Your task to perform on an android device: Open Yahoo.com Image 0: 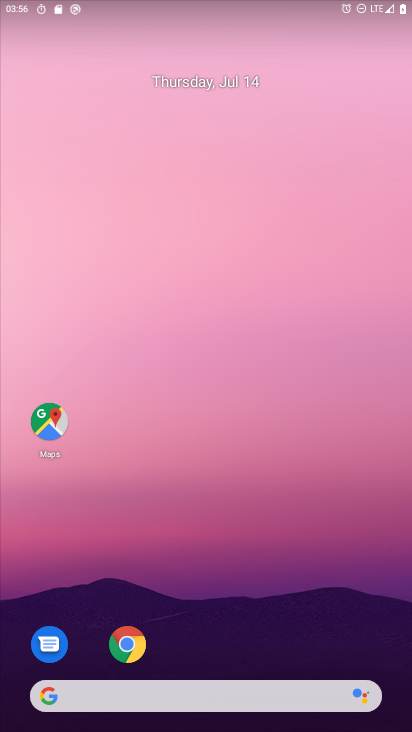
Step 0: drag from (260, 601) to (217, 83)
Your task to perform on an android device: Open Yahoo.com Image 1: 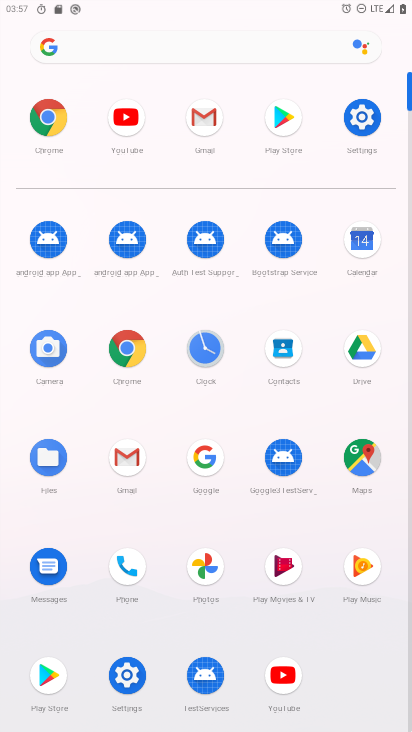
Step 1: click (127, 352)
Your task to perform on an android device: Open Yahoo.com Image 2: 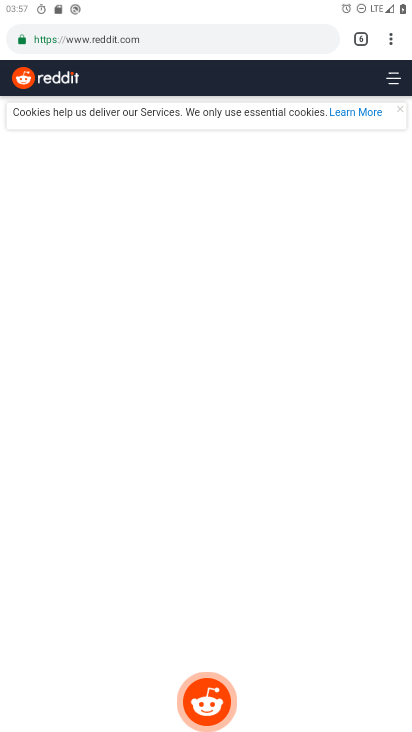
Step 2: click (205, 42)
Your task to perform on an android device: Open Yahoo.com Image 3: 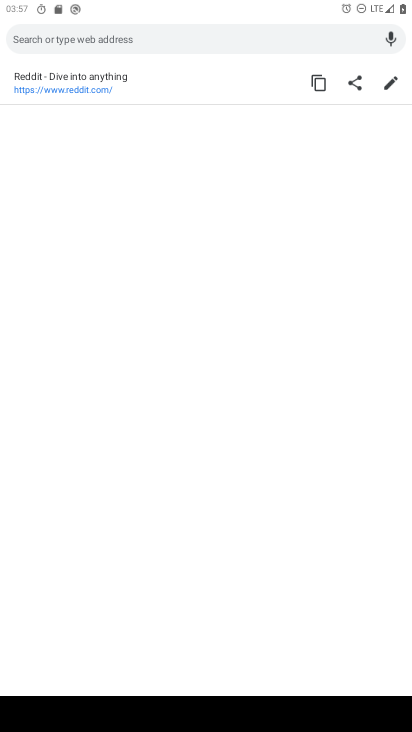
Step 3: type "yahoo.com"
Your task to perform on an android device: Open Yahoo.com Image 4: 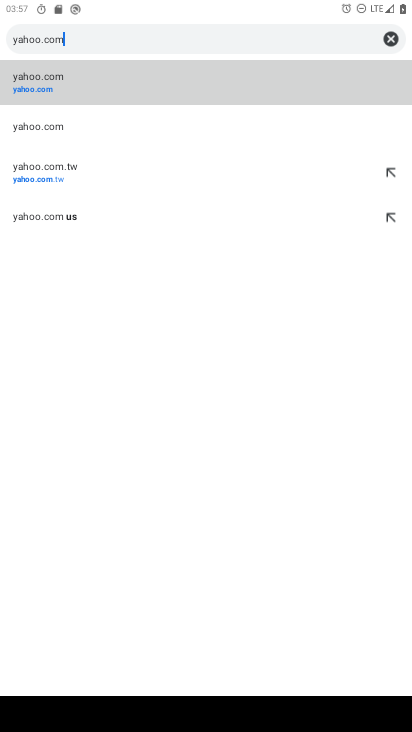
Step 4: click (42, 88)
Your task to perform on an android device: Open Yahoo.com Image 5: 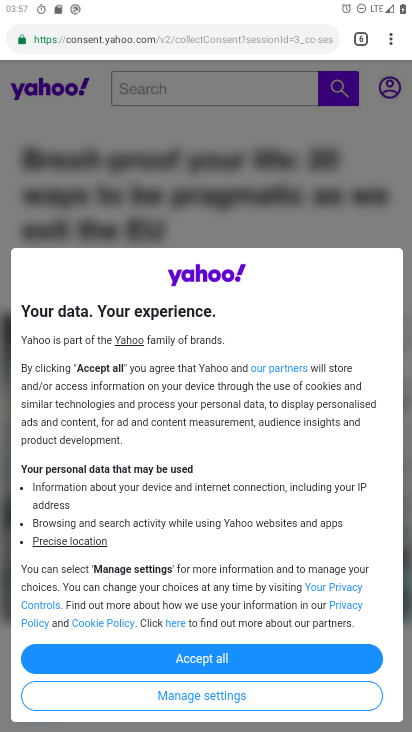
Step 5: task complete